Your task to perform on an android device: Go to network settings Image 0: 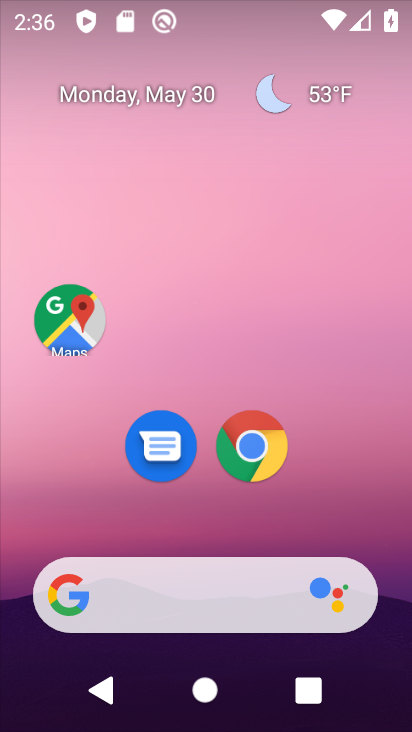
Step 0: drag from (312, 524) to (247, 73)
Your task to perform on an android device: Go to network settings Image 1: 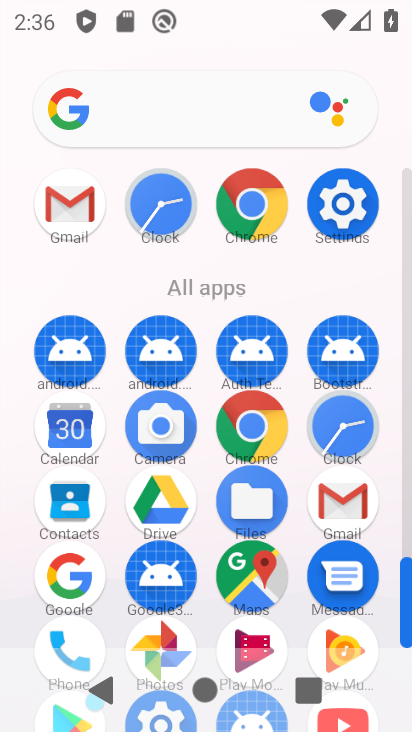
Step 1: click (344, 203)
Your task to perform on an android device: Go to network settings Image 2: 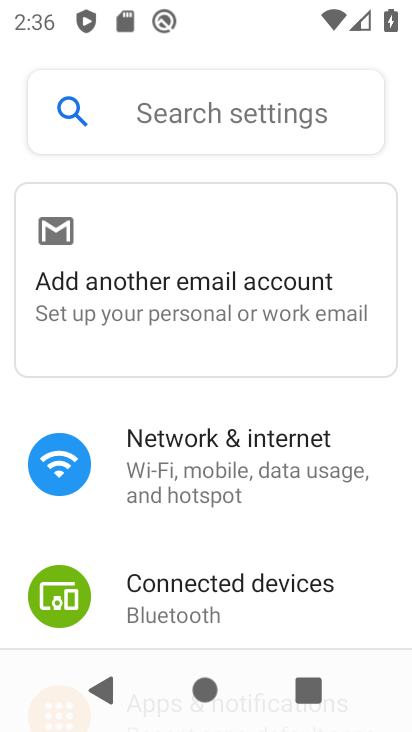
Step 2: click (188, 435)
Your task to perform on an android device: Go to network settings Image 3: 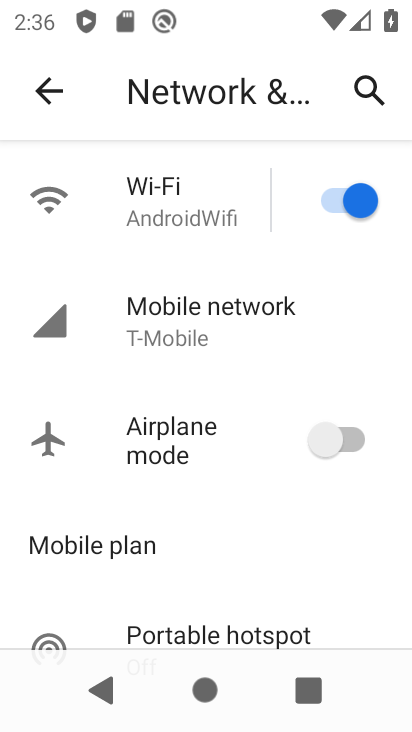
Step 3: click (203, 315)
Your task to perform on an android device: Go to network settings Image 4: 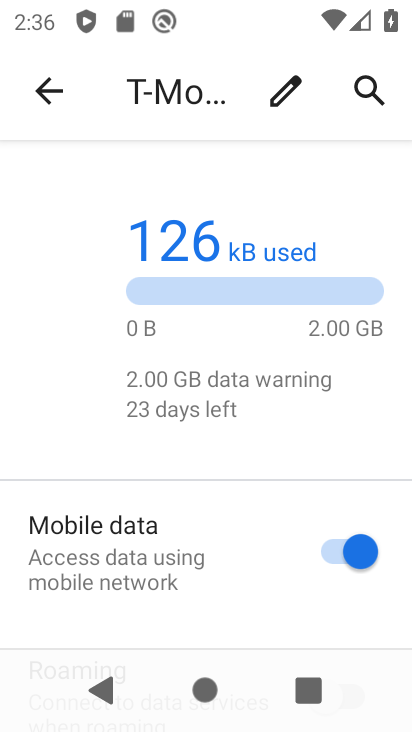
Step 4: task complete